Your task to perform on an android device: Show me popular videos on Youtube Image 0: 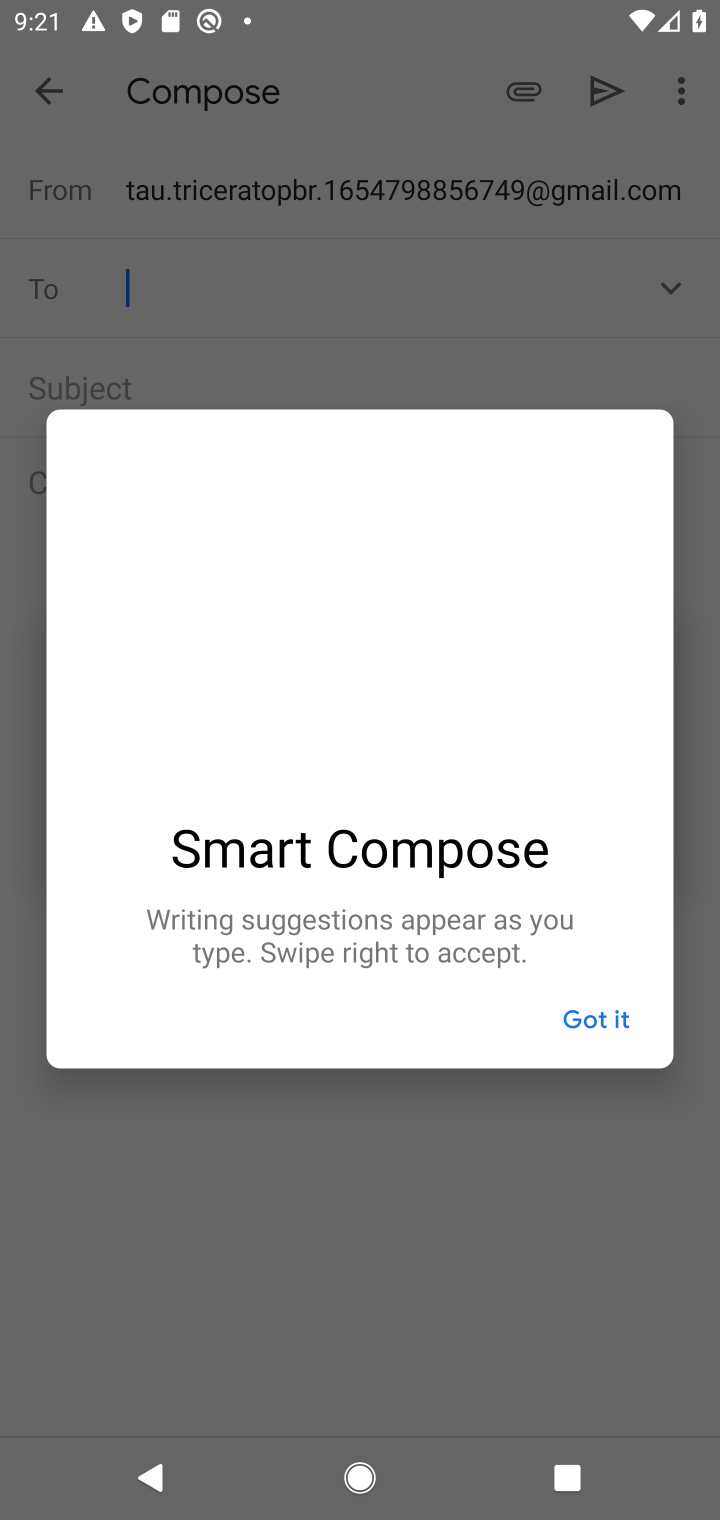
Step 0: press home button
Your task to perform on an android device: Show me popular videos on Youtube Image 1: 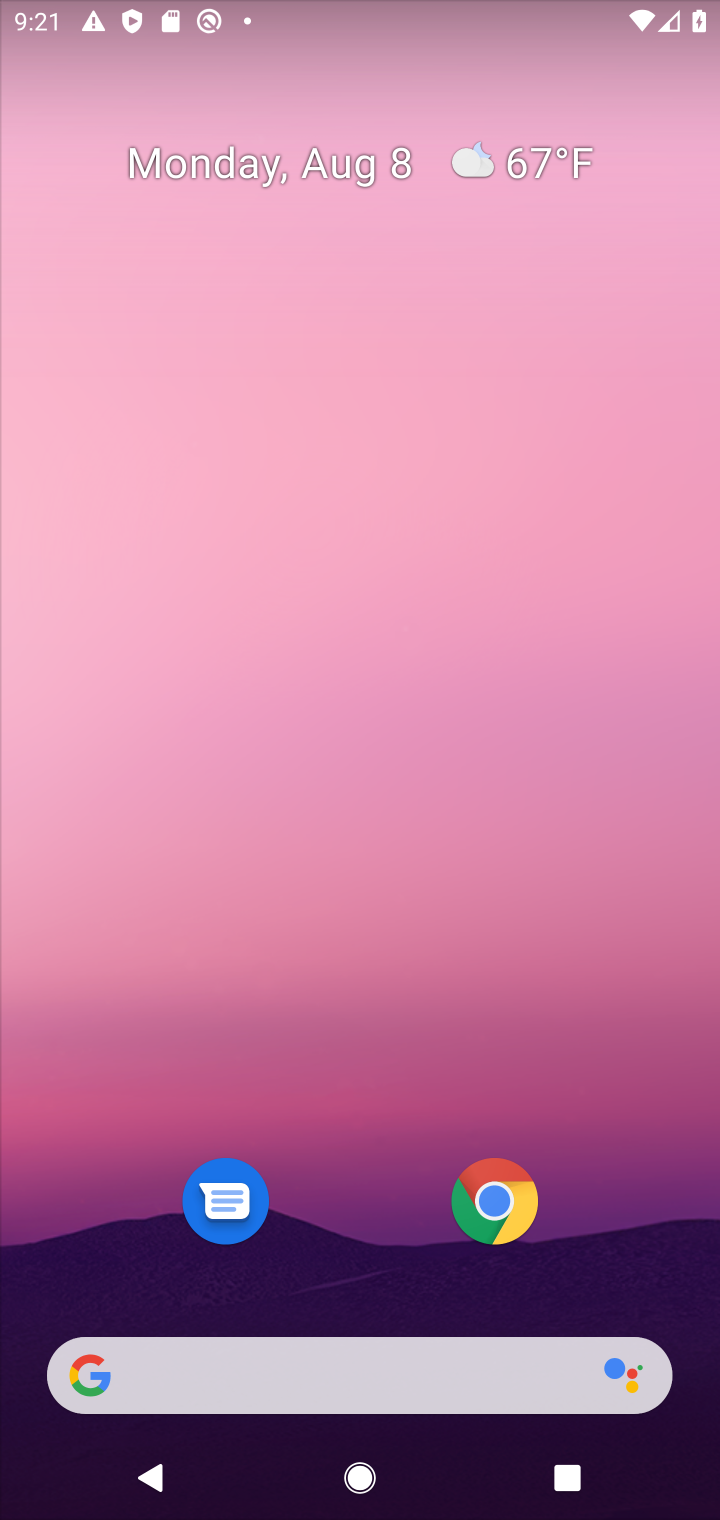
Step 1: press home button
Your task to perform on an android device: Show me popular videos on Youtube Image 2: 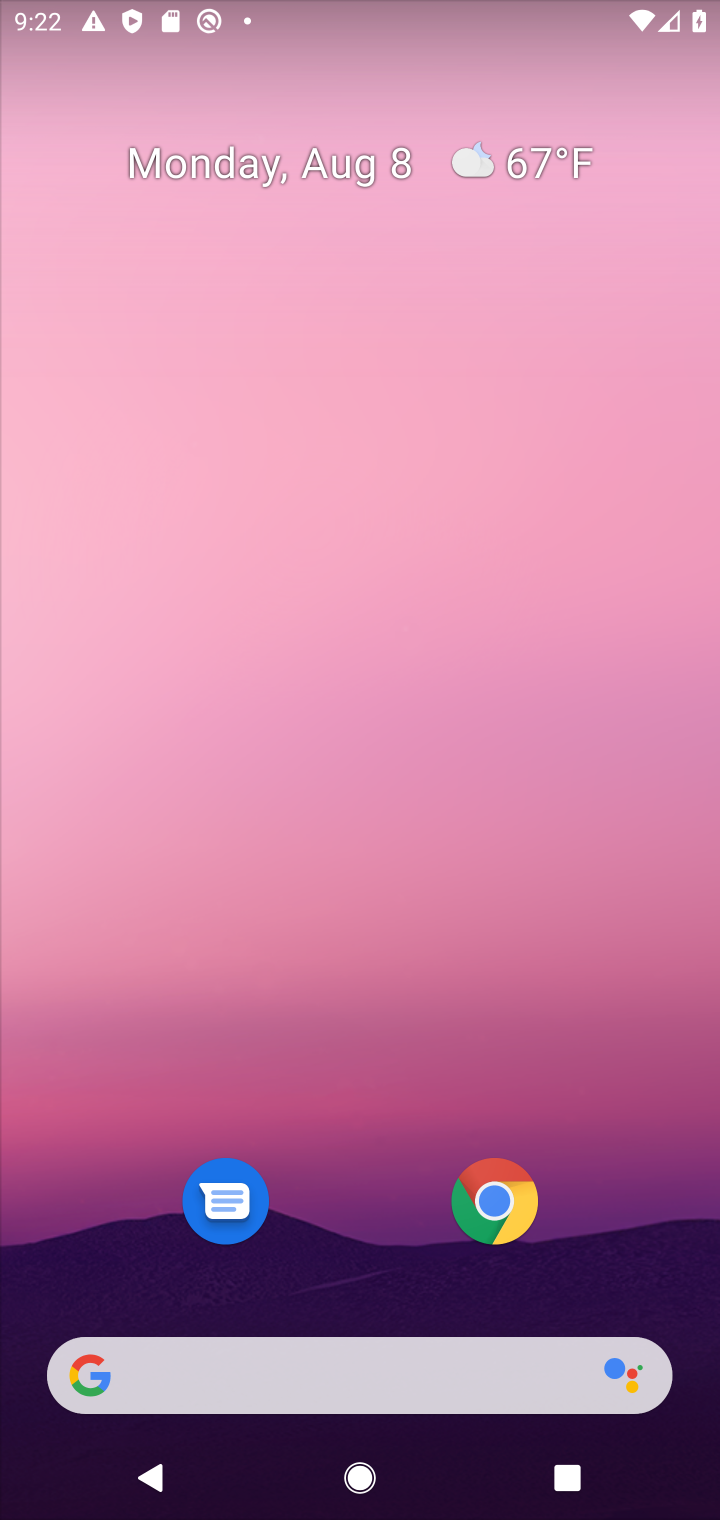
Step 2: drag from (362, 1112) to (407, 393)
Your task to perform on an android device: Show me popular videos on Youtube Image 3: 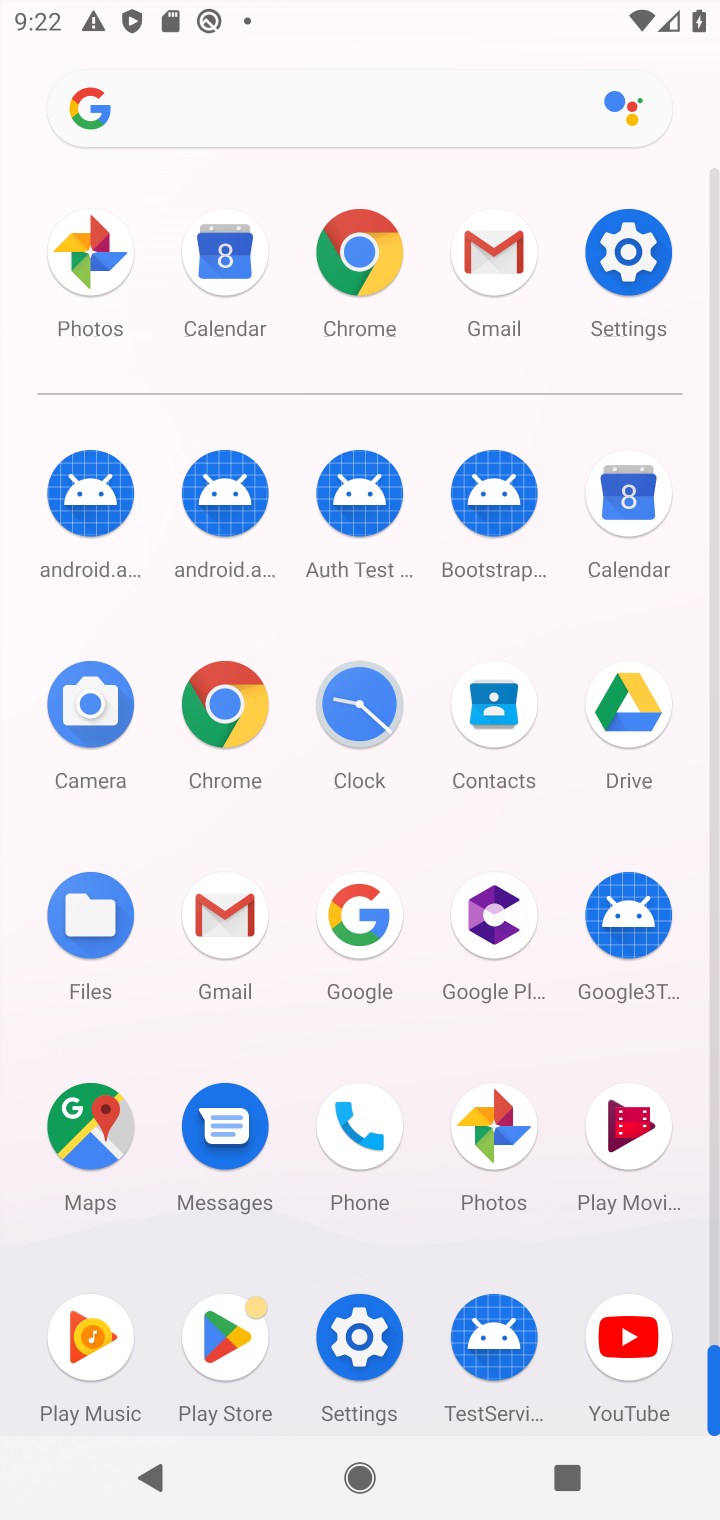
Step 3: click (631, 1332)
Your task to perform on an android device: Show me popular videos on Youtube Image 4: 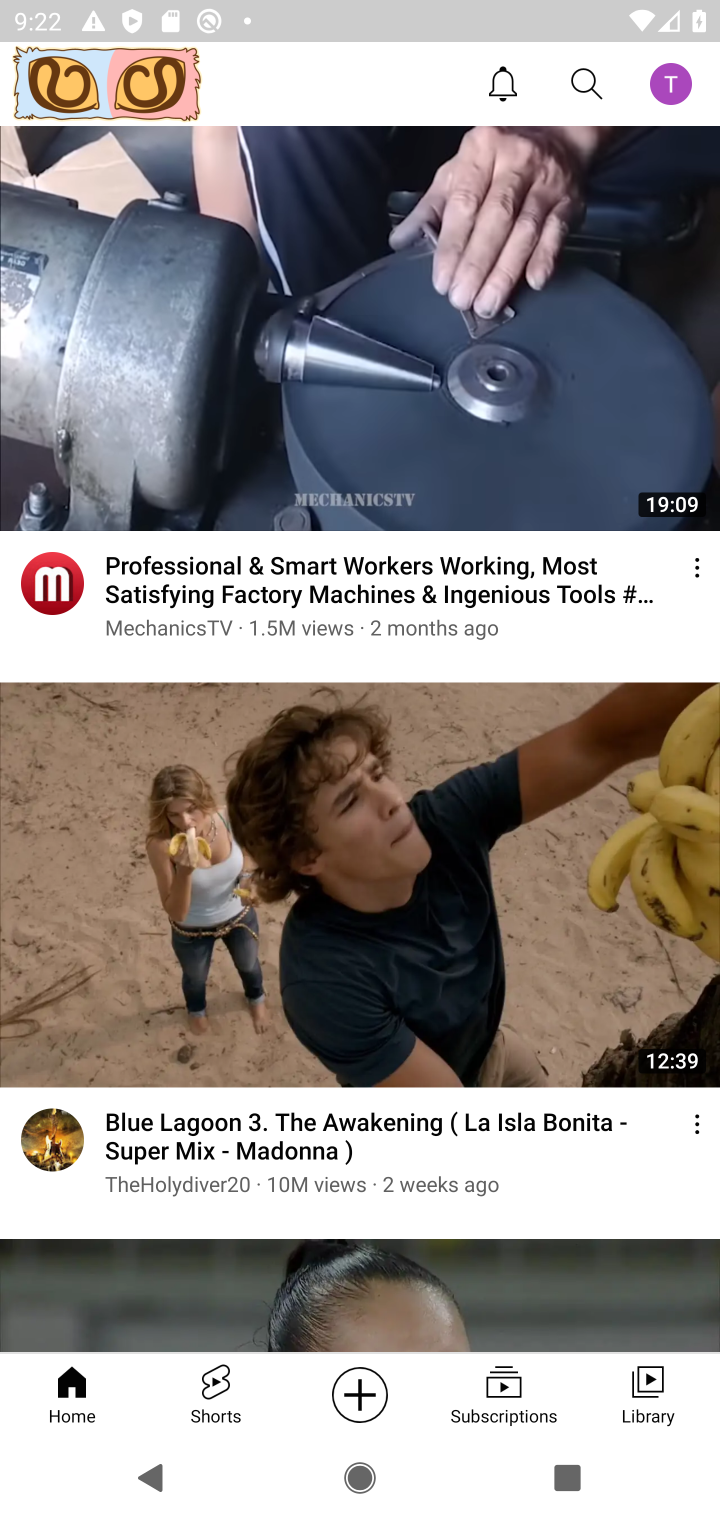
Step 4: task complete